Your task to perform on an android device: find snoozed emails in the gmail app Image 0: 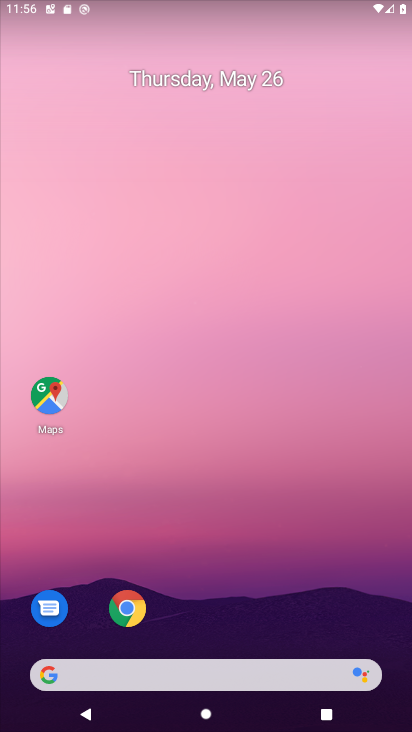
Step 0: drag from (401, 708) to (362, 225)
Your task to perform on an android device: find snoozed emails in the gmail app Image 1: 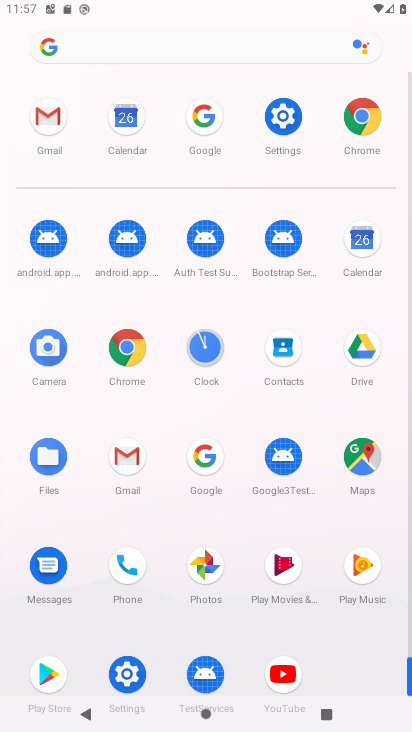
Step 1: click (120, 459)
Your task to perform on an android device: find snoozed emails in the gmail app Image 2: 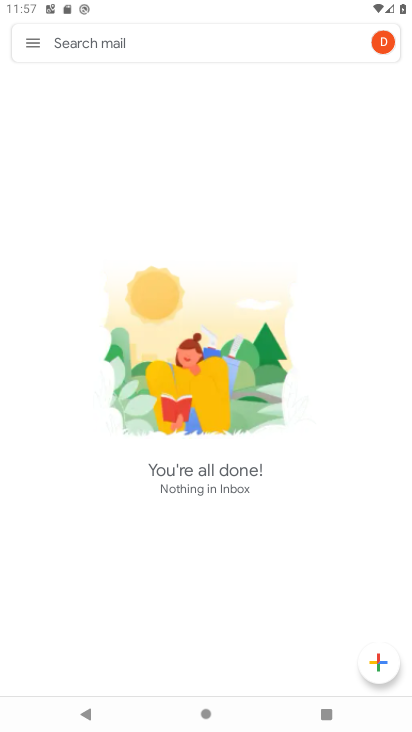
Step 2: click (31, 41)
Your task to perform on an android device: find snoozed emails in the gmail app Image 3: 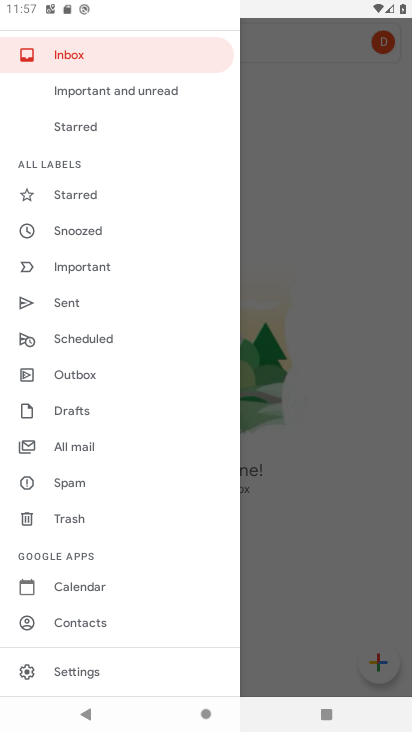
Step 3: click (84, 235)
Your task to perform on an android device: find snoozed emails in the gmail app Image 4: 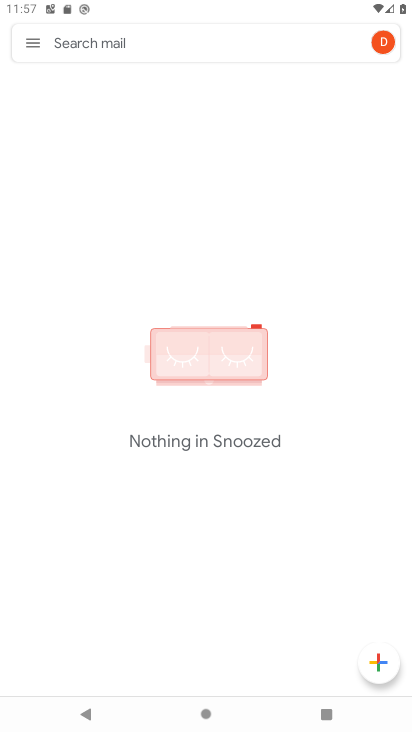
Step 4: task complete